Your task to perform on an android device: turn off translation in the chrome app Image 0: 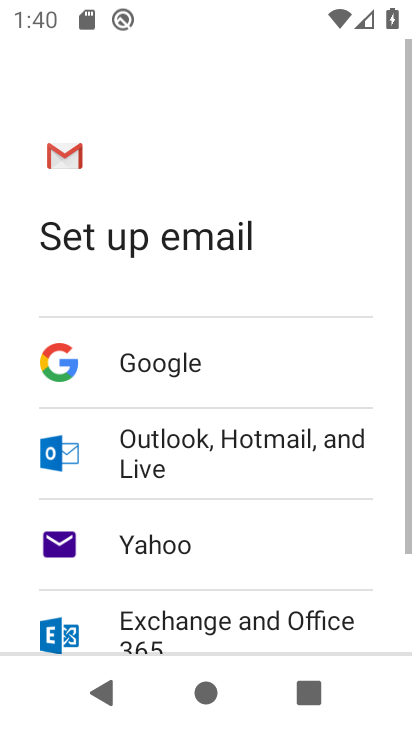
Step 0: press home button
Your task to perform on an android device: turn off translation in the chrome app Image 1: 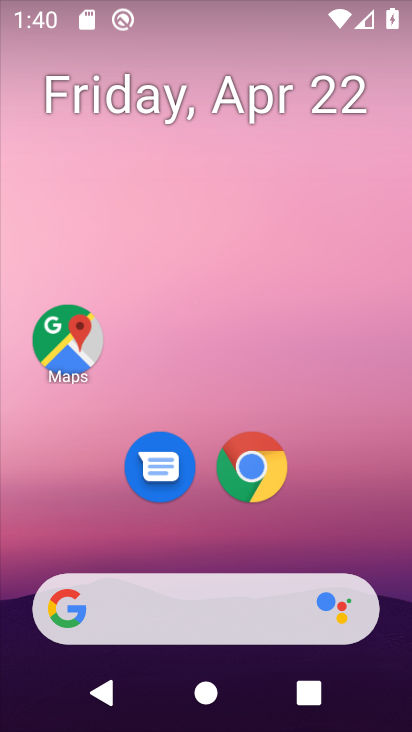
Step 1: click (268, 479)
Your task to perform on an android device: turn off translation in the chrome app Image 2: 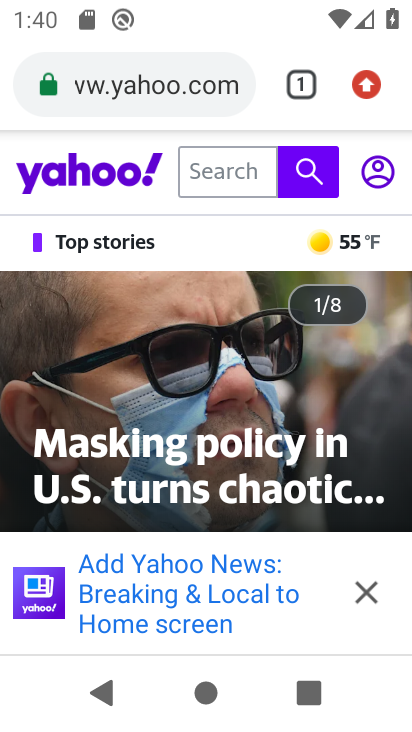
Step 2: click (371, 93)
Your task to perform on an android device: turn off translation in the chrome app Image 3: 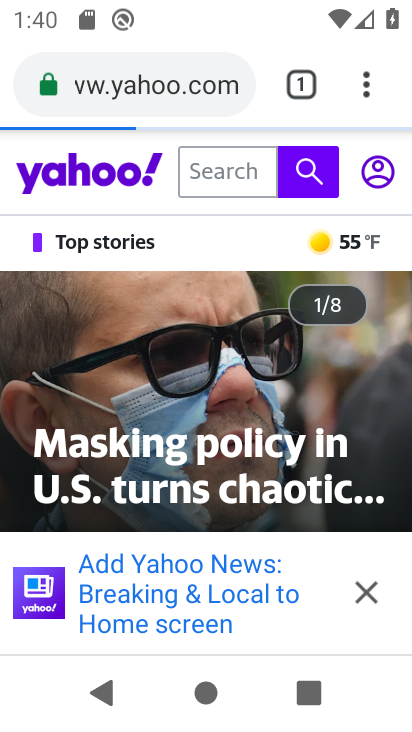
Step 3: drag from (364, 92) to (229, 519)
Your task to perform on an android device: turn off translation in the chrome app Image 4: 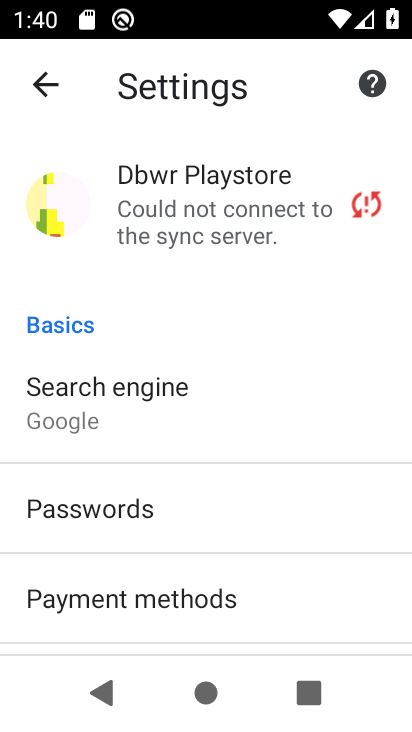
Step 4: drag from (225, 612) to (284, 252)
Your task to perform on an android device: turn off translation in the chrome app Image 5: 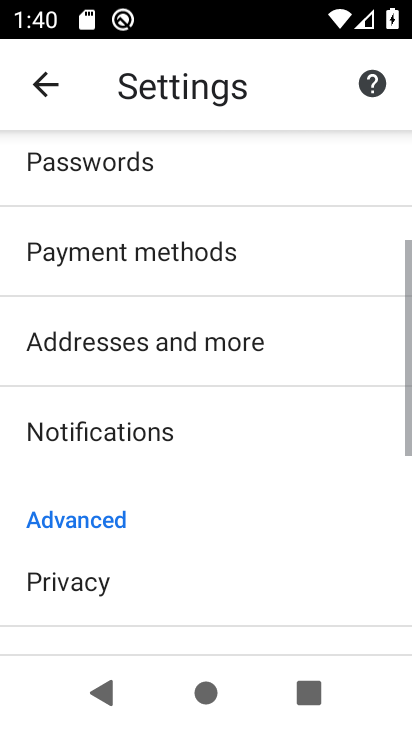
Step 5: drag from (249, 584) to (305, 246)
Your task to perform on an android device: turn off translation in the chrome app Image 6: 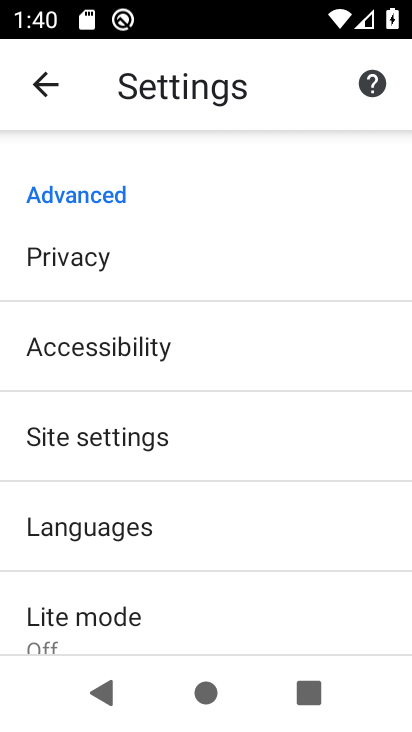
Step 6: click (174, 545)
Your task to perform on an android device: turn off translation in the chrome app Image 7: 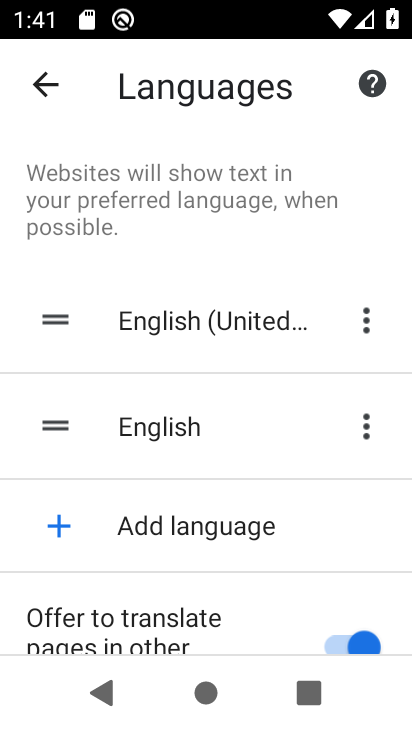
Step 7: drag from (308, 606) to (370, 165)
Your task to perform on an android device: turn off translation in the chrome app Image 8: 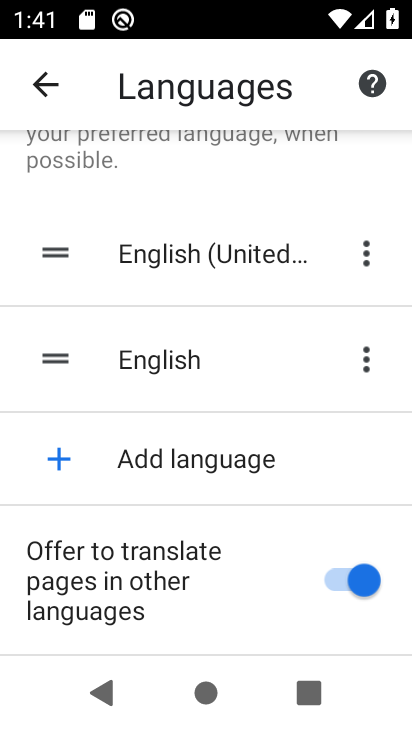
Step 8: click (362, 588)
Your task to perform on an android device: turn off translation in the chrome app Image 9: 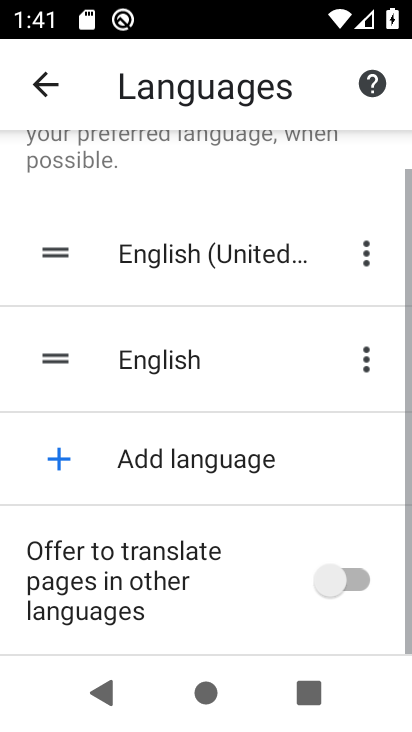
Step 9: task complete